Your task to perform on an android device: Set an alarm for 10am Image 0: 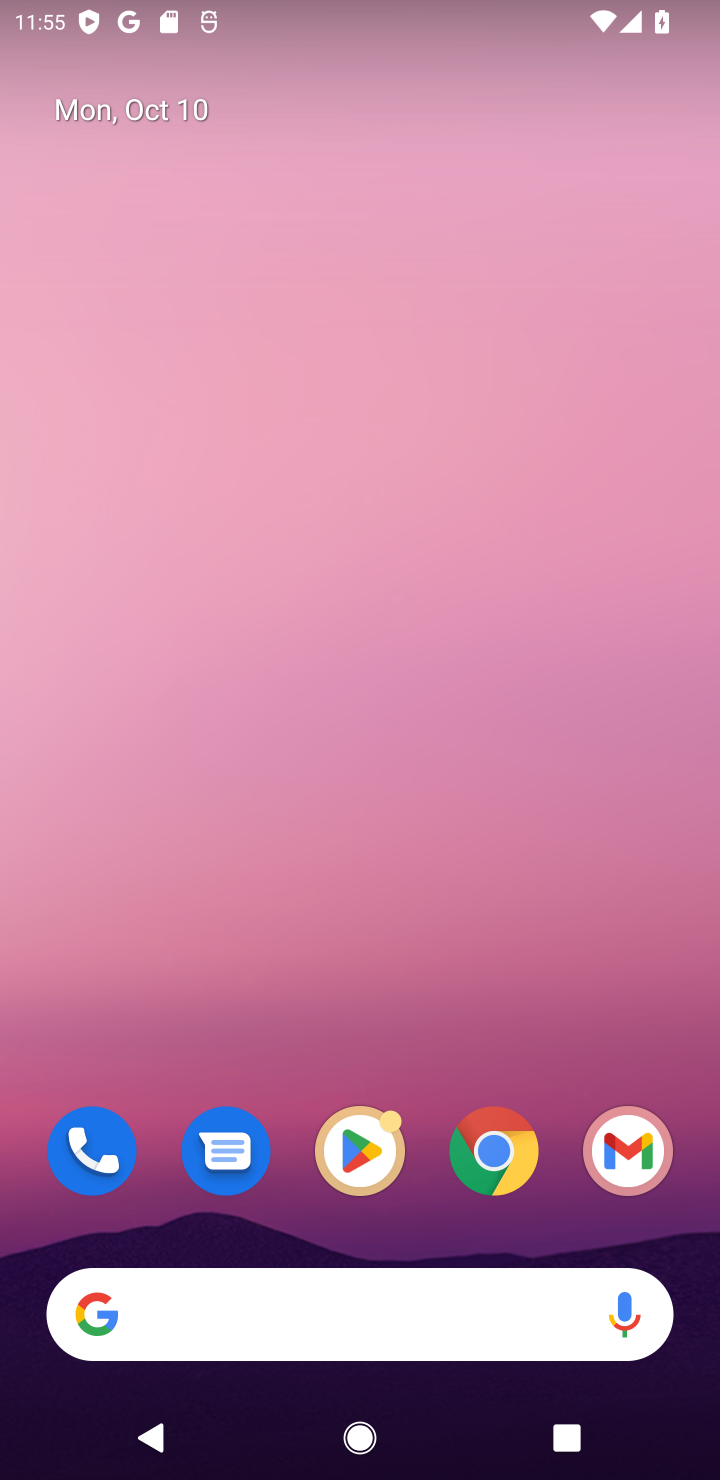
Step 0: drag from (411, 1068) to (418, 105)
Your task to perform on an android device: Set an alarm for 10am Image 1: 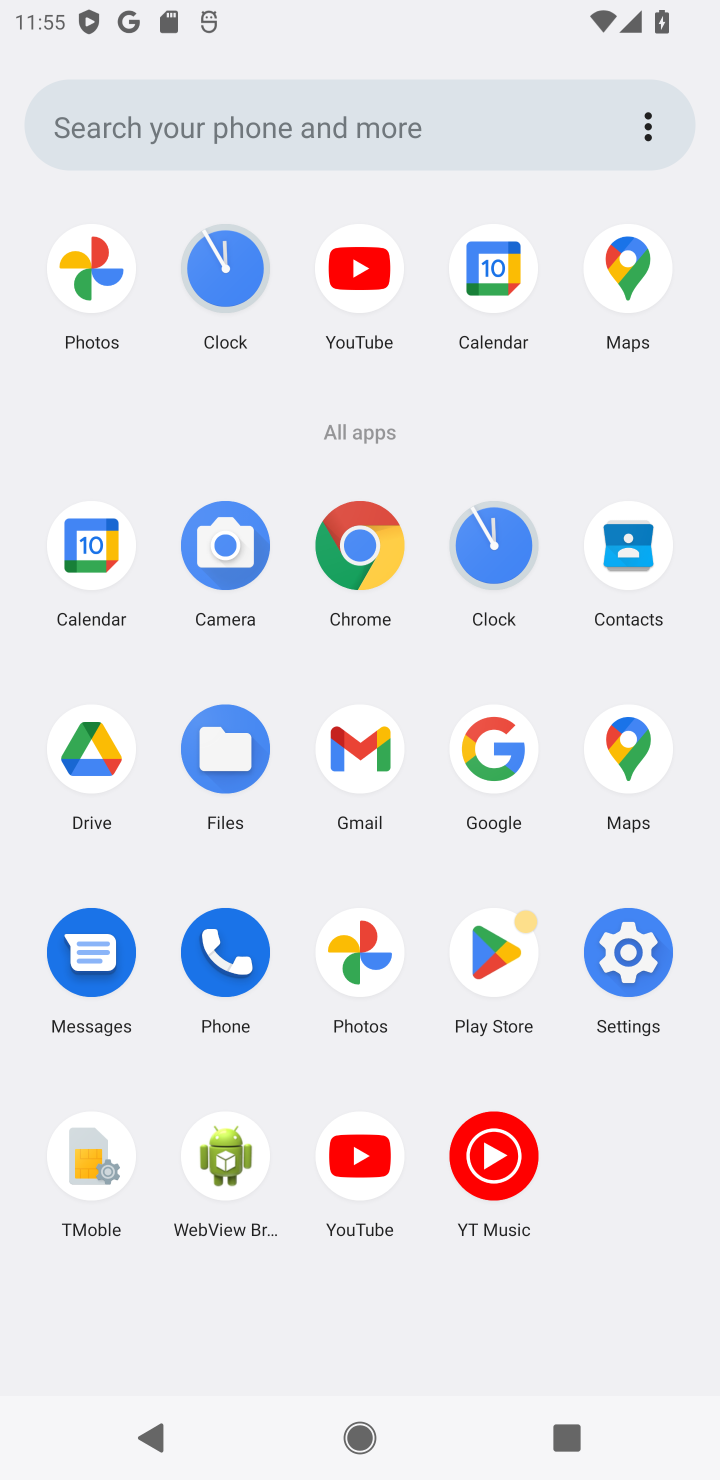
Step 1: click (212, 268)
Your task to perform on an android device: Set an alarm for 10am Image 2: 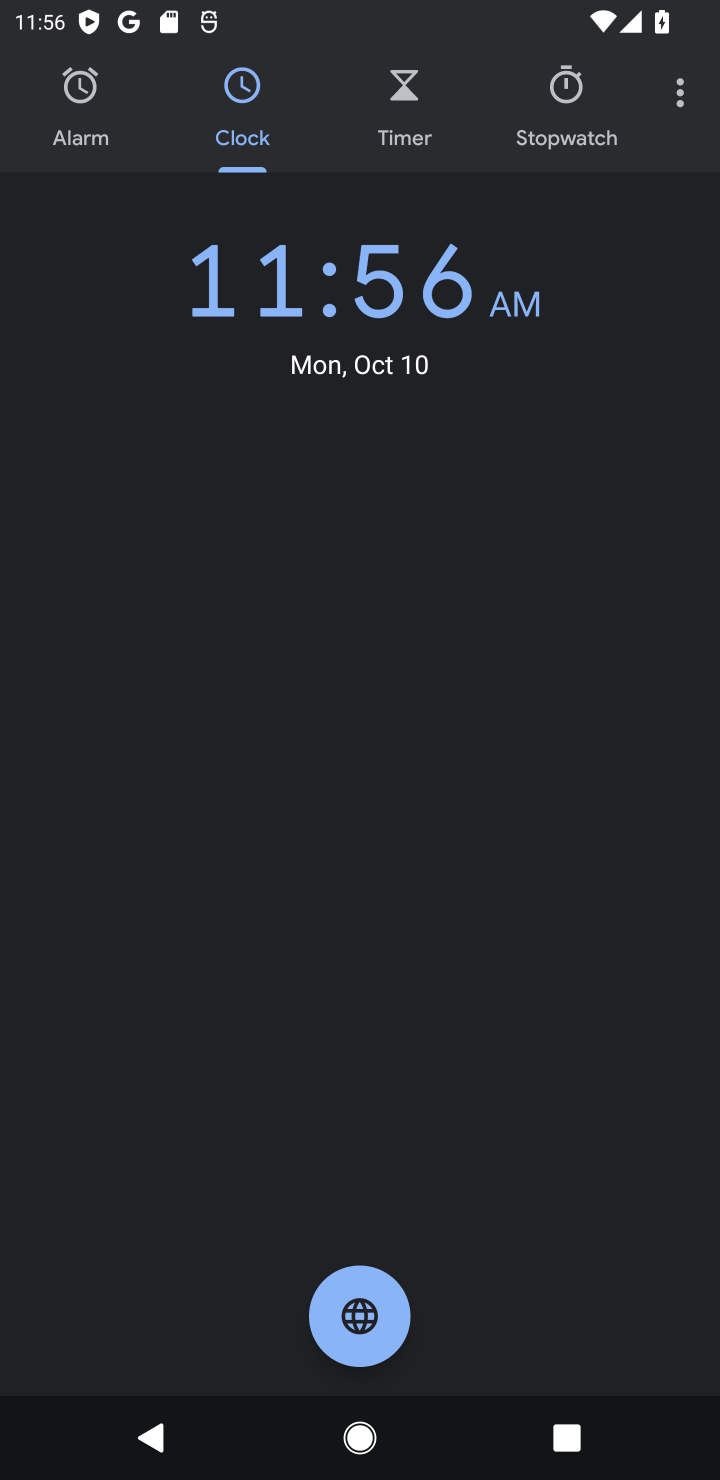
Step 2: click (75, 116)
Your task to perform on an android device: Set an alarm for 10am Image 3: 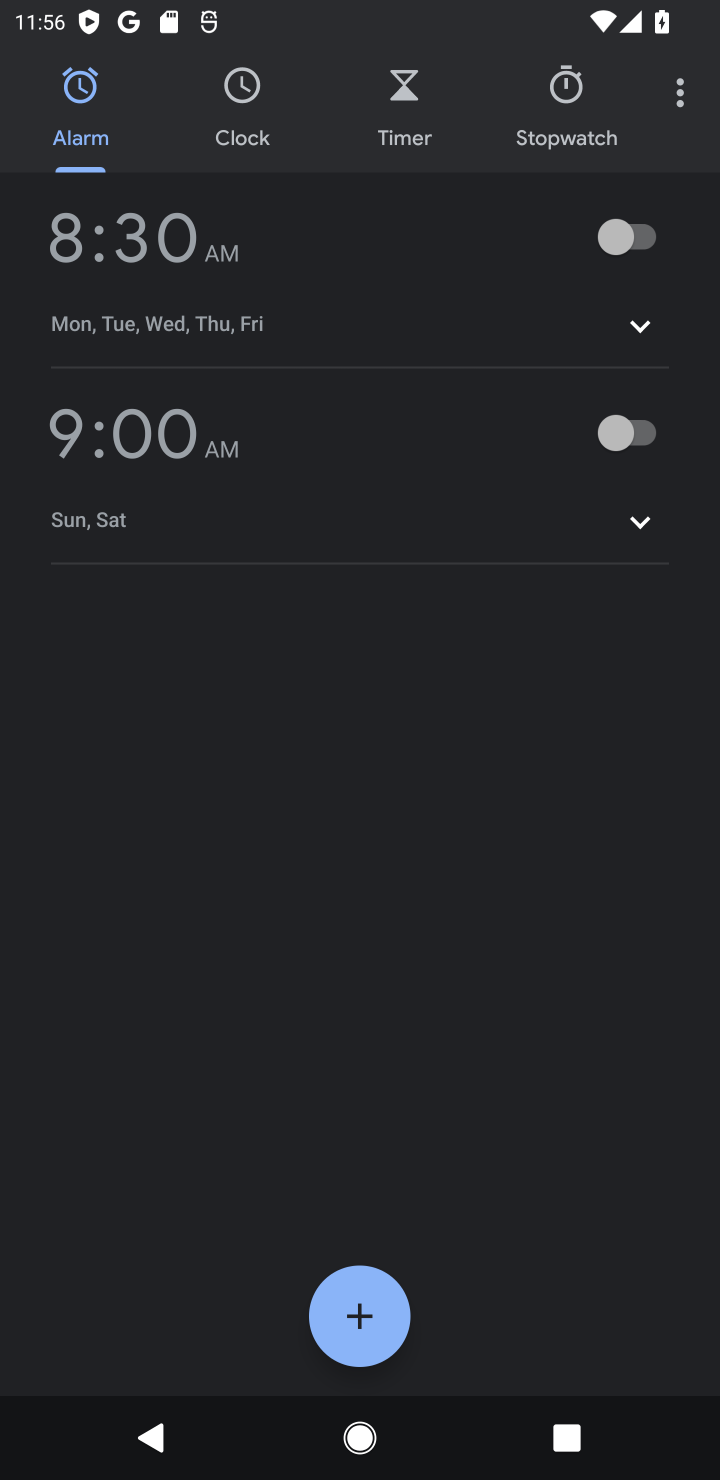
Step 3: click (355, 1317)
Your task to perform on an android device: Set an alarm for 10am Image 4: 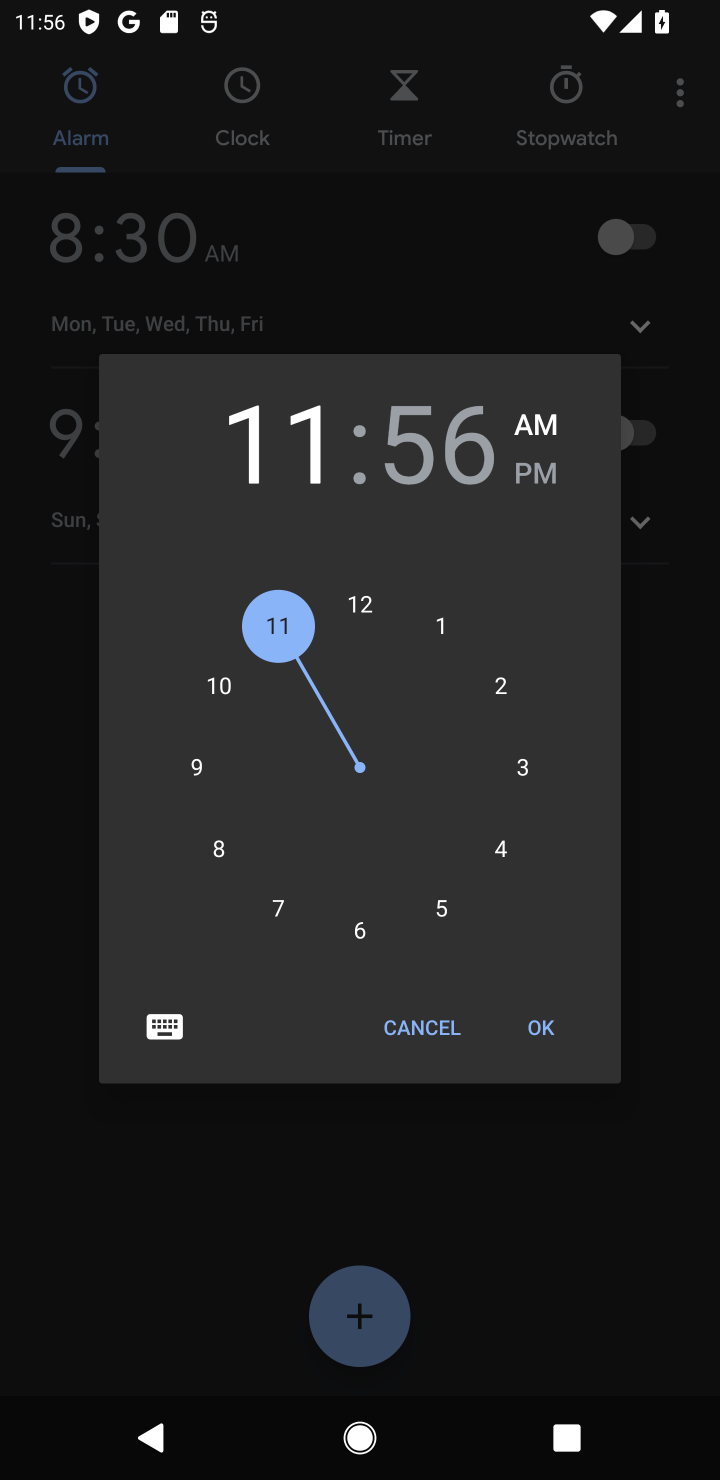
Step 4: click (229, 693)
Your task to perform on an android device: Set an alarm for 10am Image 5: 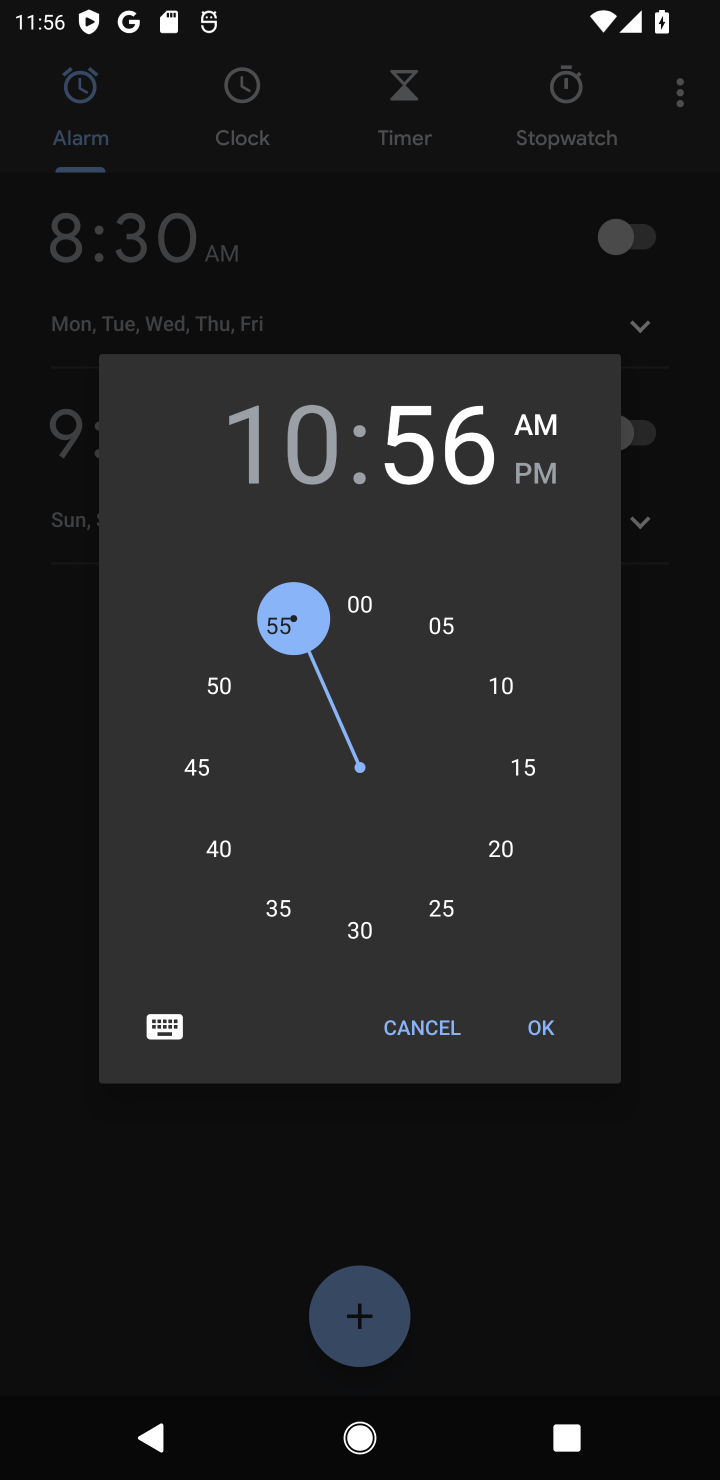
Step 5: click (349, 606)
Your task to perform on an android device: Set an alarm for 10am Image 6: 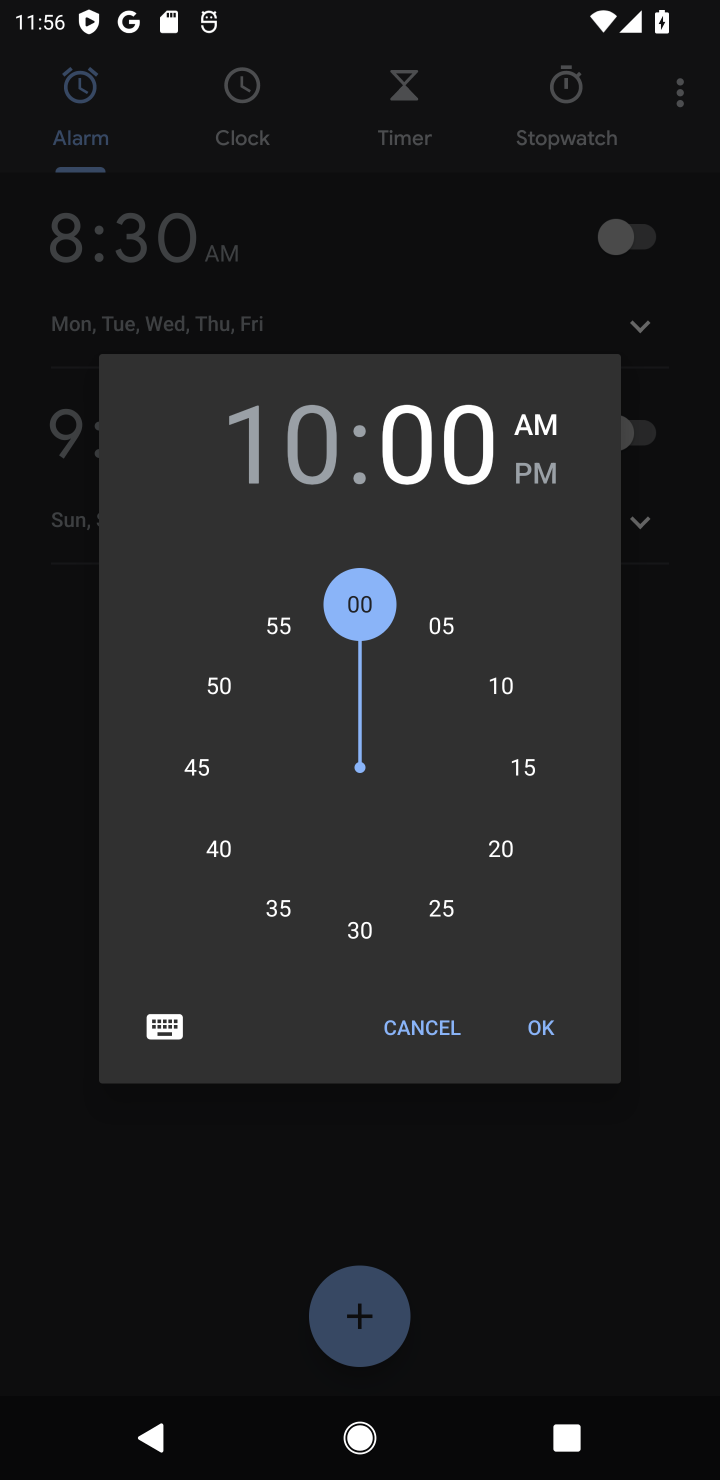
Step 6: click (548, 1040)
Your task to perform on an android device: Set an alarm for 10am Image 7: 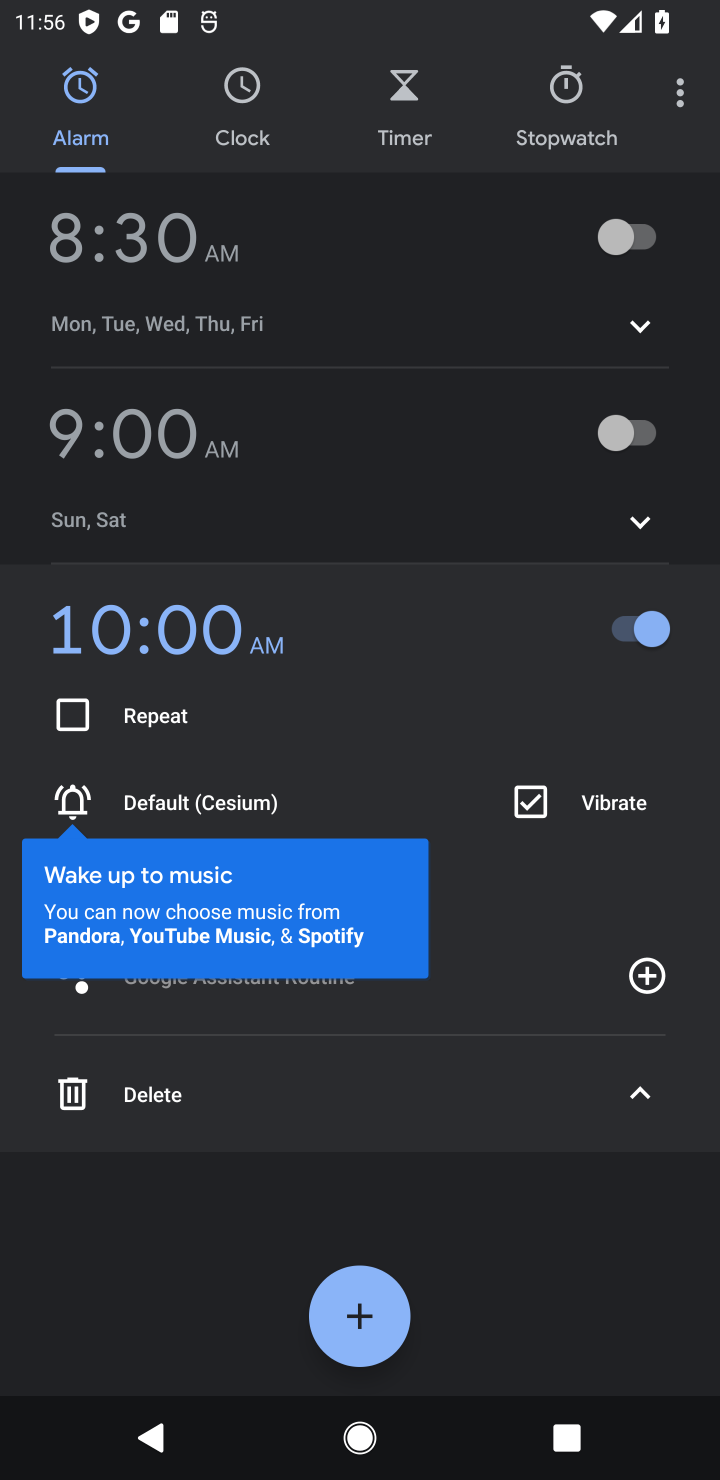
Step 7: task complete